Your task to perform on an android device: create a new album in the google photos Image 0: 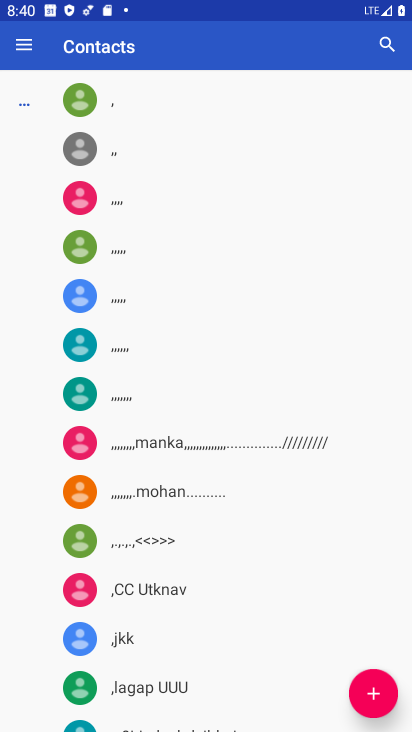
Step 0: press back button
Your task to perform on an android device: create a new album in the google photos Image 1: 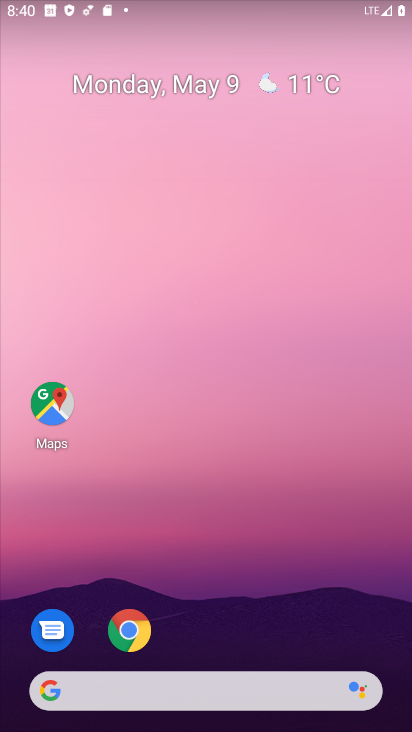
Step 1: drag from (224, 637) to (323, 93)
Your task to perform on an android device: create a new album in the google photos Image 2: 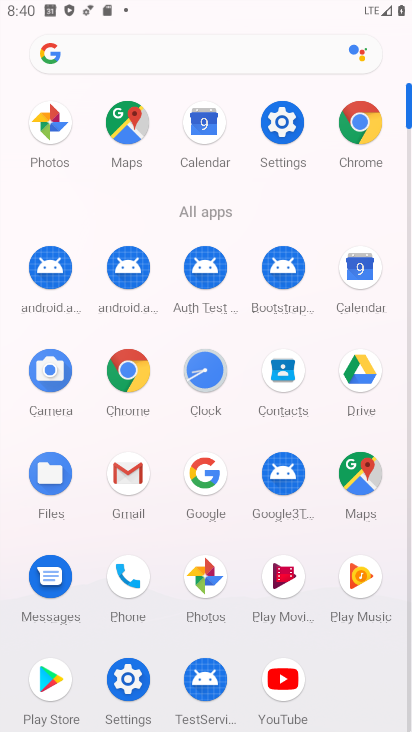
Step 2: click (202, 576)
Your task to perform on an android device: create a new album in the google photos Image 3: 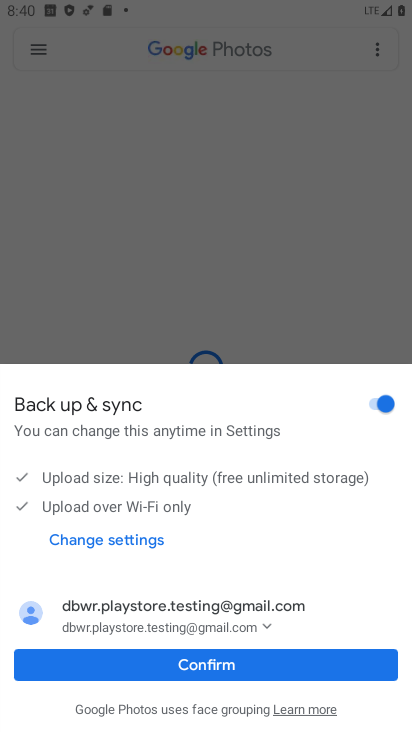
Step 3: click (248, 657)
Your task to perform on an android device: create a new album in the google photos Image 4: 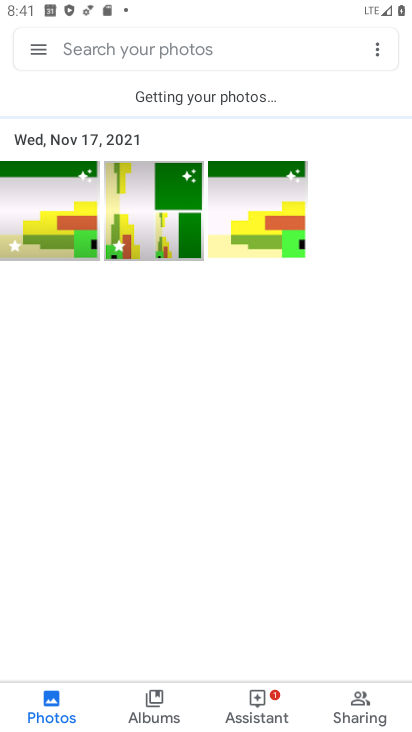
Step 4: click (374, 41)
Your task to perform on an android device: create a new album in the google photos Image 5: 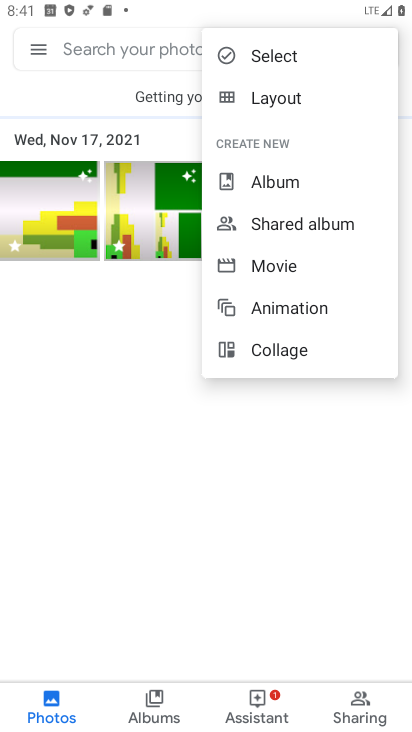
Step 5: click (320, 185)
Your task to perform on an android device: create a new album in the google photos Image 6: 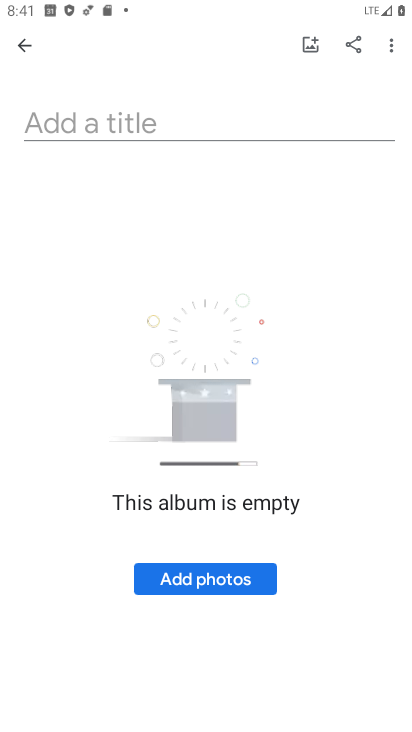
Step 6: click (112, 120)
Your task to perform on an android device: create a new album in the google photos Image 7: 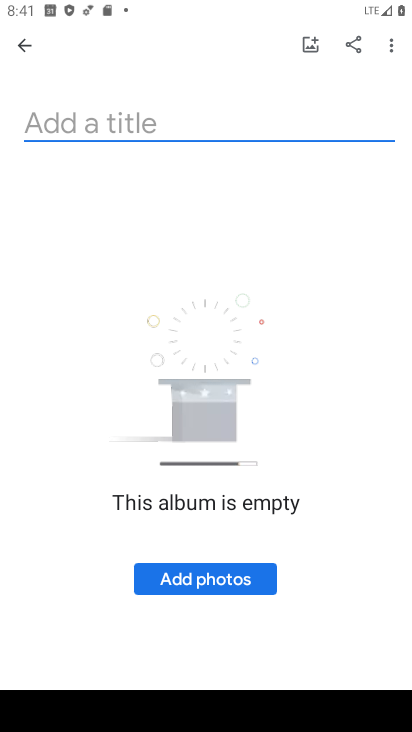
Step 7: type "zzzzzzzzzzzzzzzz"
Your task to perform on an android device: create a new album in the google photos Image 8: 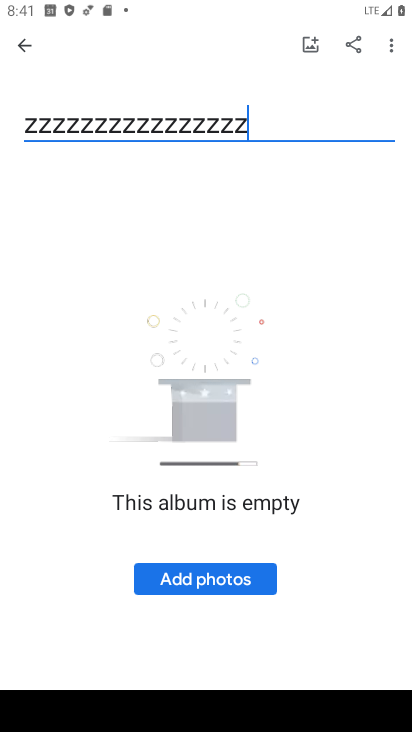
Step 8: click (215, 593)
Your task to perform on an android device: create a new album in the google photos Image 9: 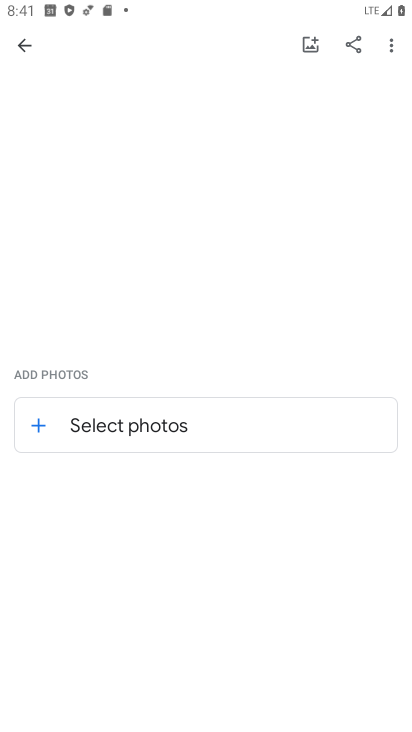
Step 9: click (170, 434)
Your task to perform on an android device: create a new album in the google photos Image 10: 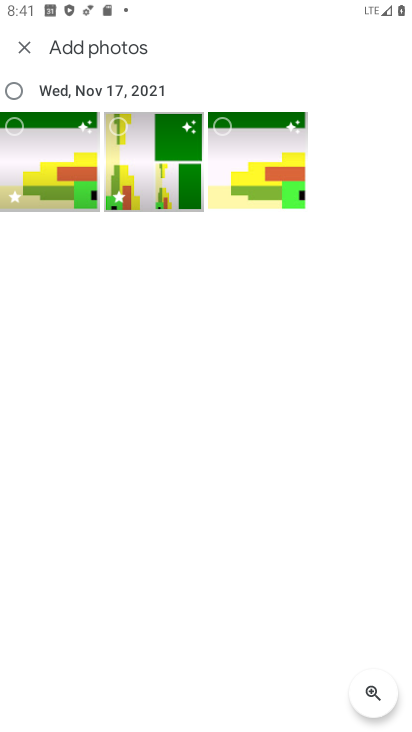
Step 10: click (15, 87)
Your task to perform on an android device: create a new album in the google photos Image 11: 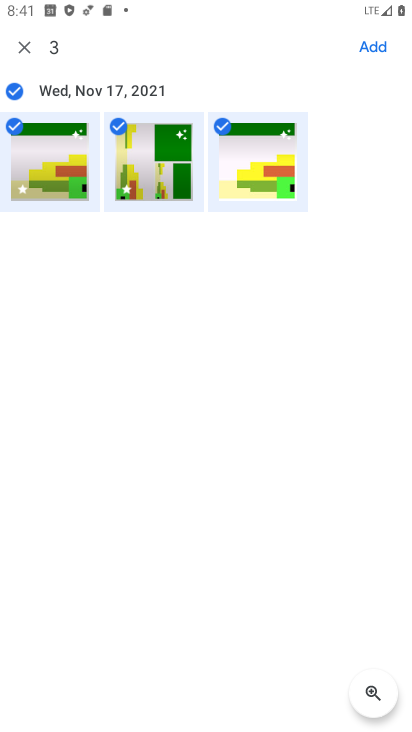
Step 11: click (381, 45)
Your task to perform on an android device: create a new album in the google photos Image 12: 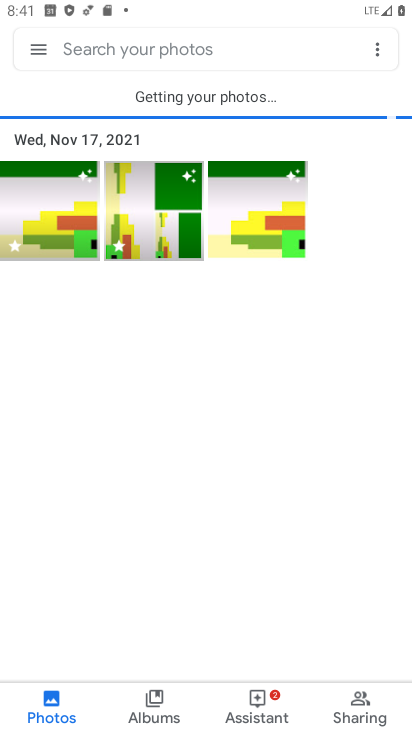
Step 12: click (392, 63)
Your task to perform on an android device: create a new album in the google photos Image 13: 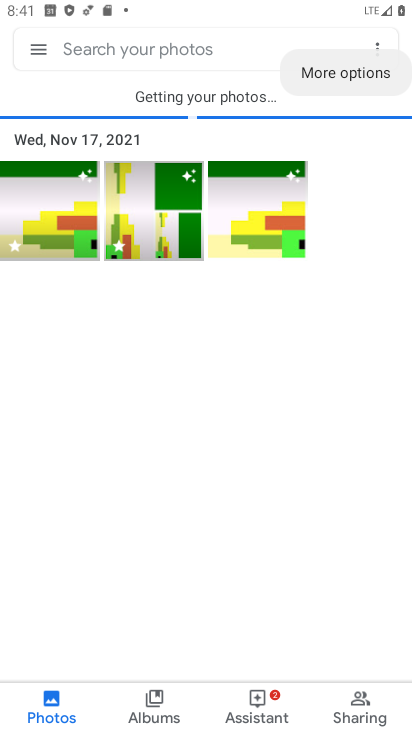
Step 13: click (388, 53)
Your task to perform on an android device: create a new album in the google photos Image 14: 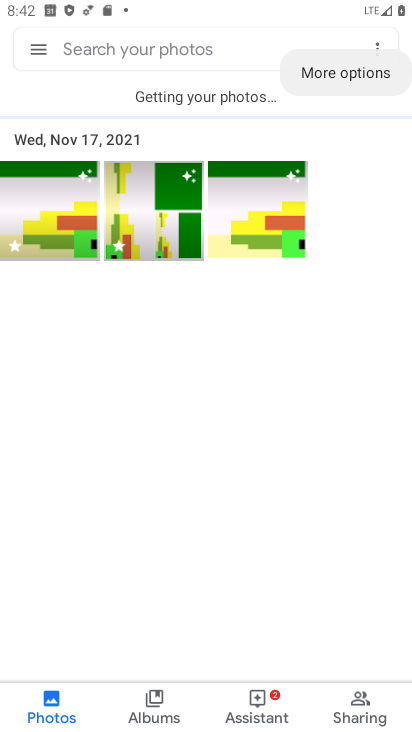
Step 14: click (382, 41)
Your task to perform on an android device: create a new album in the google photos Image 15: 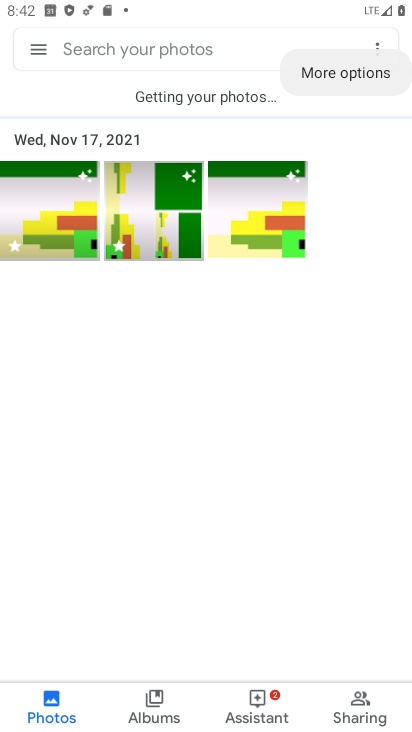
Step 15: click (382, 60)
Your task to perform on an android device: create a new album in the google photos Image 16: 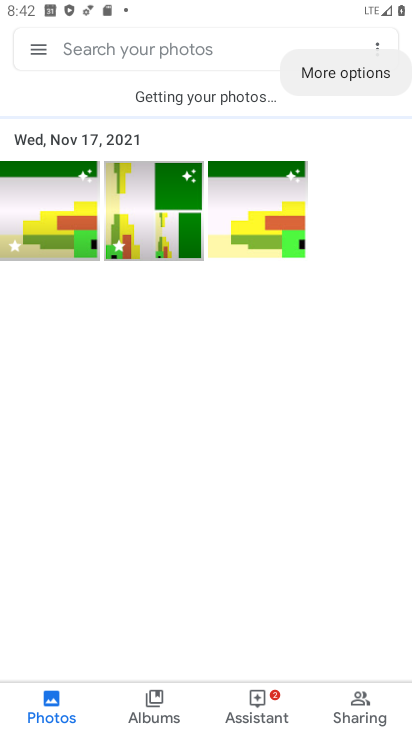
Step 16: click (381, 48)
Your task to perform on an android device: create a new album in the google photos Image 17: 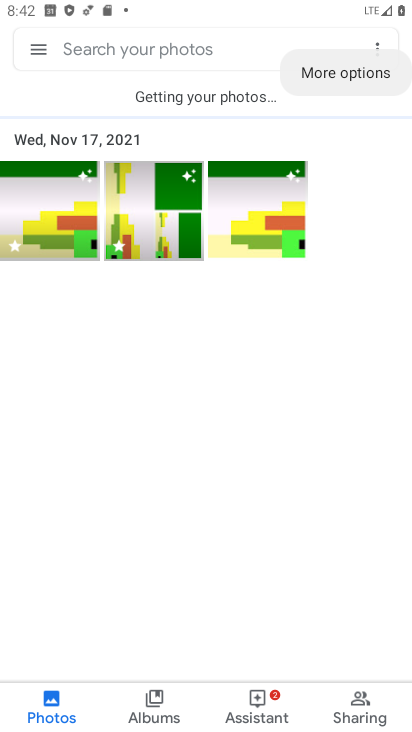
Step 17: click (379, 296)
Your task to perform on an android device: create a new album in the google photos Image 18: 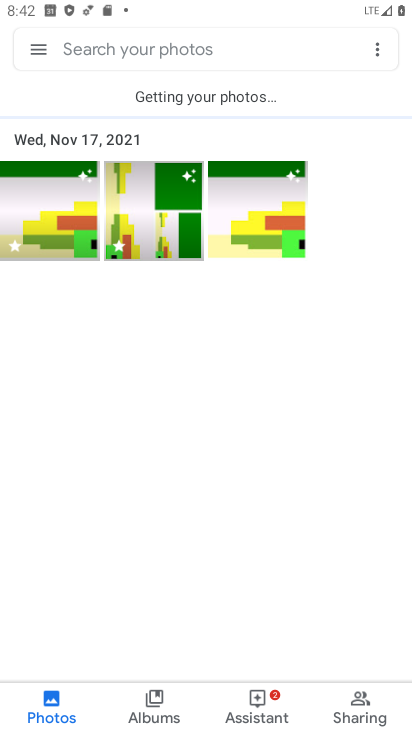
Step 18: click (374, 48)
Your task to perform on an android device: create a new album in the google photos Image 19: 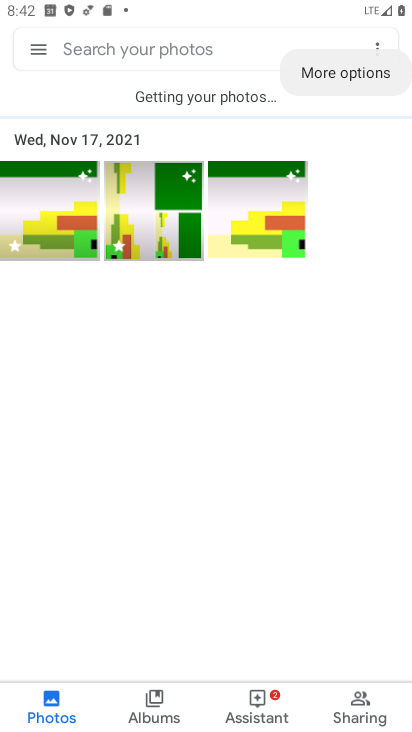
Step 19: click (389, 52)
Your task to perform on an android device: create a new album in the google photos Image 20: 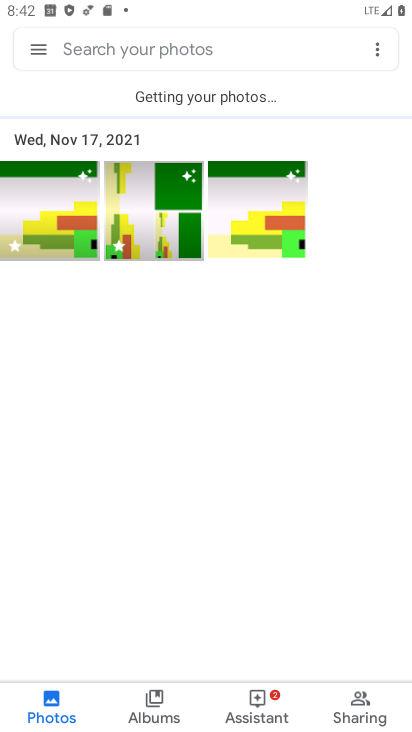
Step 20: click (374, 48)
Your task to perform on an android device: create a new album in the google photos Image 21: 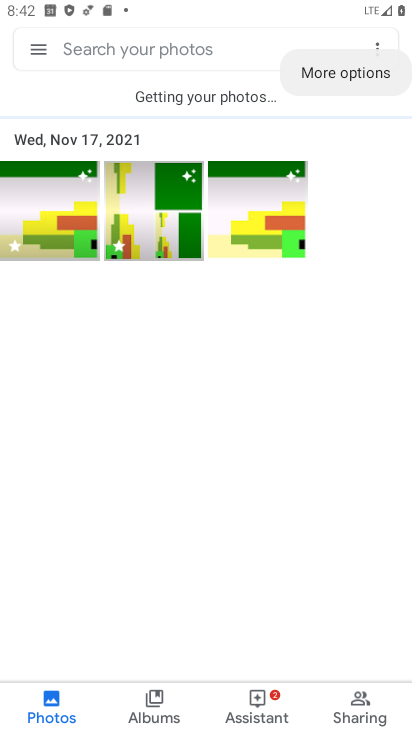
Step 21: click (377, 47)
Your task to perform on an android device: create a new album in the google photos Image 22: 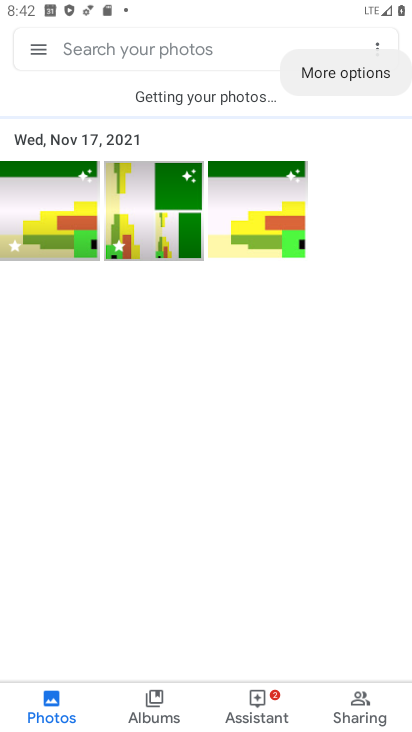
Step 22: click (367, 78)
Your task to perform on an android device: create a new album in the google photos Image 23: 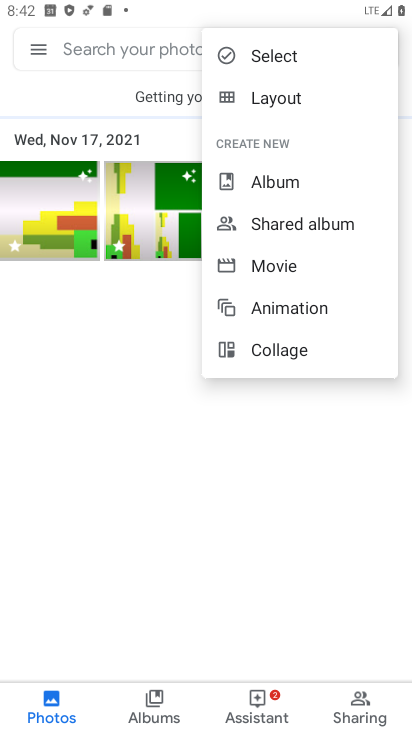
Step 23: click (278, 180)
Your task to perform on an android device: create a new album in the google photos Image 24: 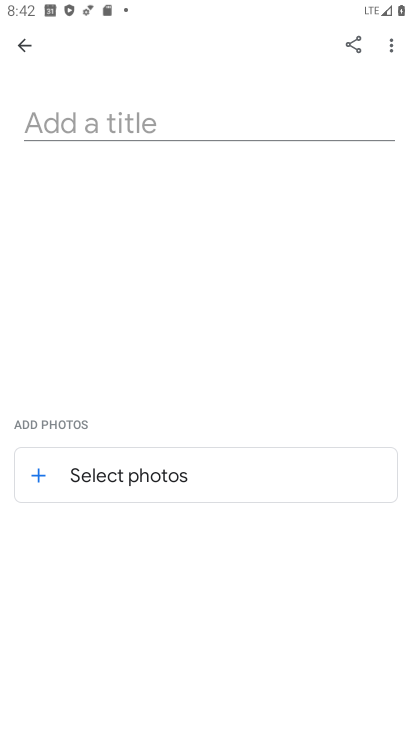
Step 24: click (104, 120)
Your task to perform on an android device: create a new album in the google photos Image 25: 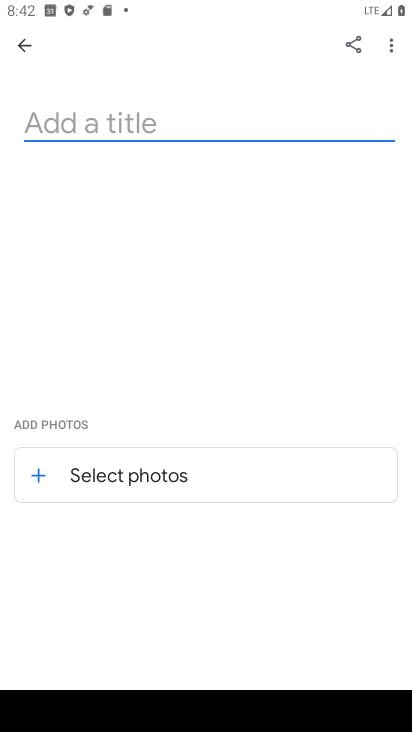
Step 25: type "zzzzzzzzzzzzzzzz"
Your task to perform on an android device: create a new album in the google photos Image 26: 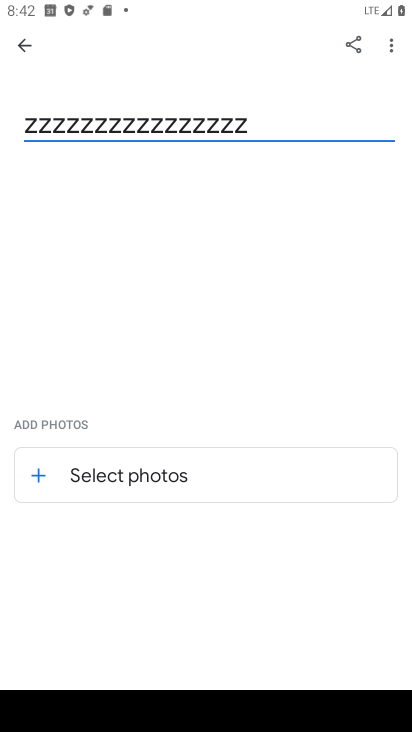
Step 26: click (197, 473)
Your task to perform on an android device: create a new album in the google photos Image 27: 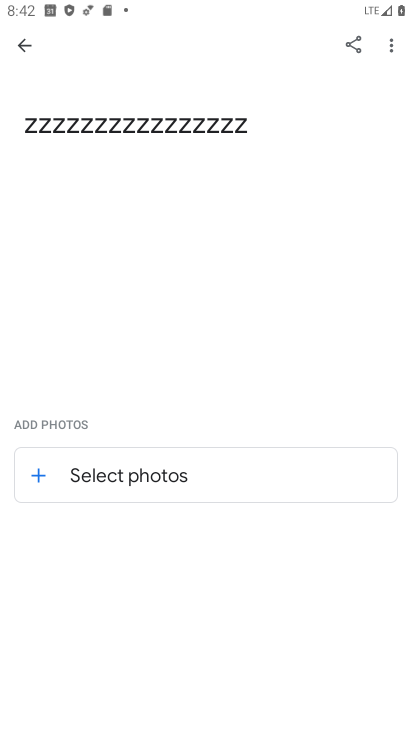
Step 27: click (145, 464)
Your task to perform on an android device: create a new album in the google photos Image 28: 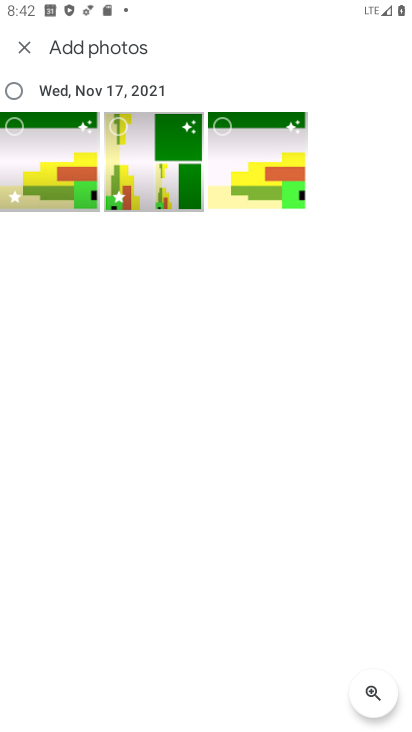
Step 28: click (29, 90)
Your task to perform on an android device: create a new album in the google photos Image 29: 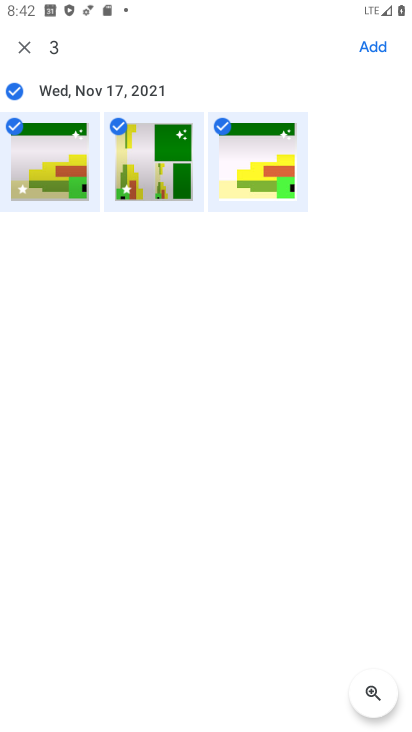
Step 29: click (375, 42)
Your task to perform on an android device: create a new album in the google photos Image 30: 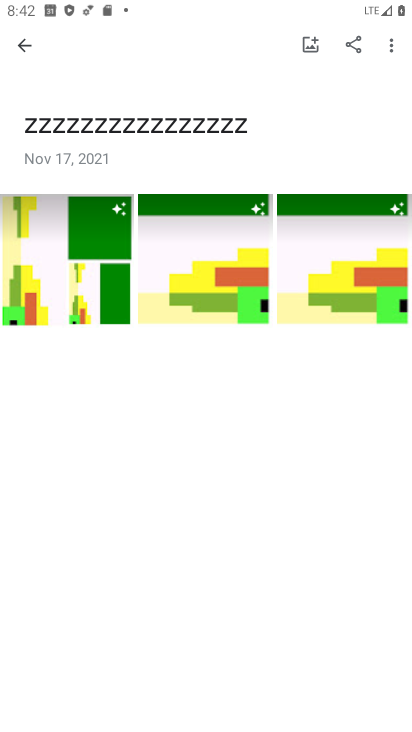
Step 30: task complete